Your task to perform on an android device: toggle javascript in the chrome app Image 0: 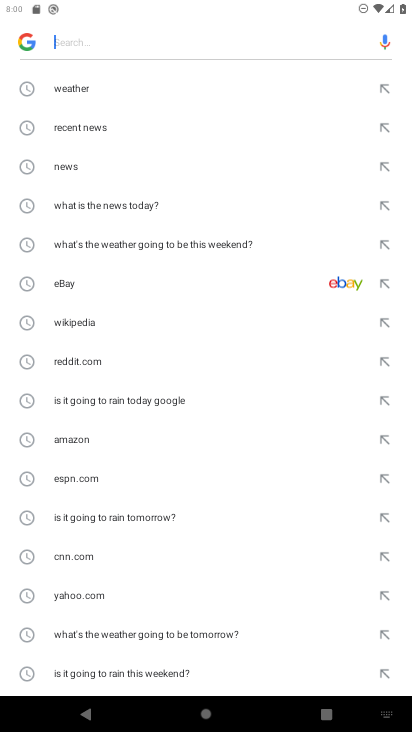
Step 0: press home button
Your task to perform on an android device: toggle javascript in the chrome app Image 1: 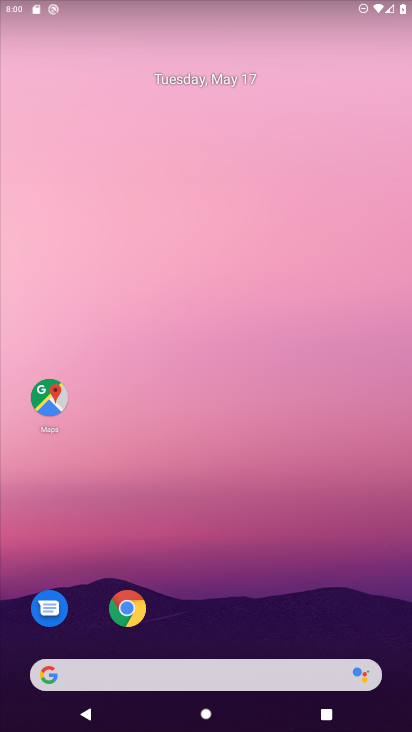
Step 1: click (123, 619)
Your task to perform on an android device: toggle javascript in the chrome app Image 2: 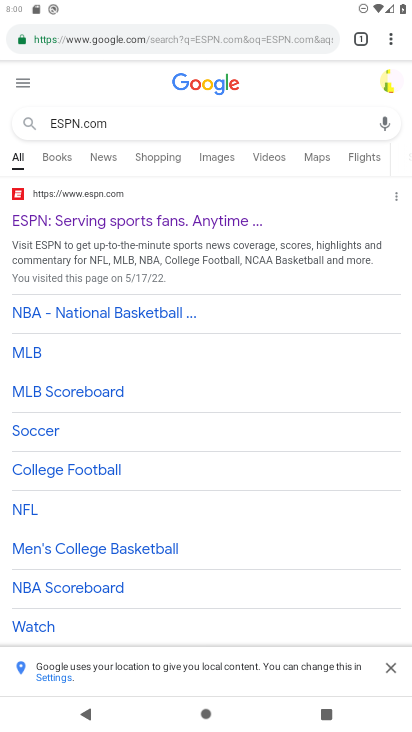
Step 2: click (395, 48)
Your task to perform on an android device: toggle javascript in the chrome app Image 3: 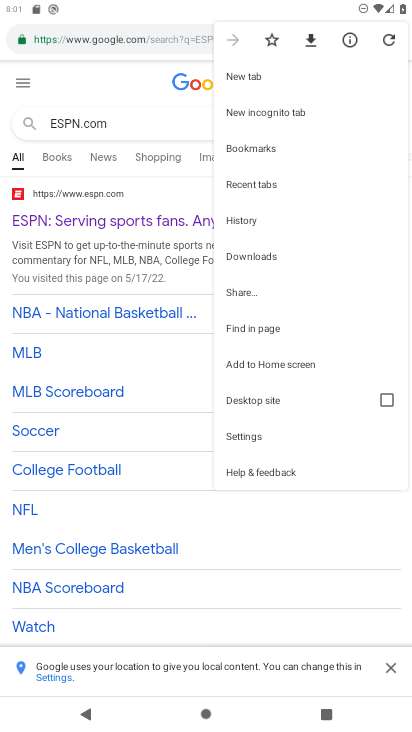
Step 3: click (251, 433)
Your task to perform on an android device: toggle javascript in the chrome app Image 4: 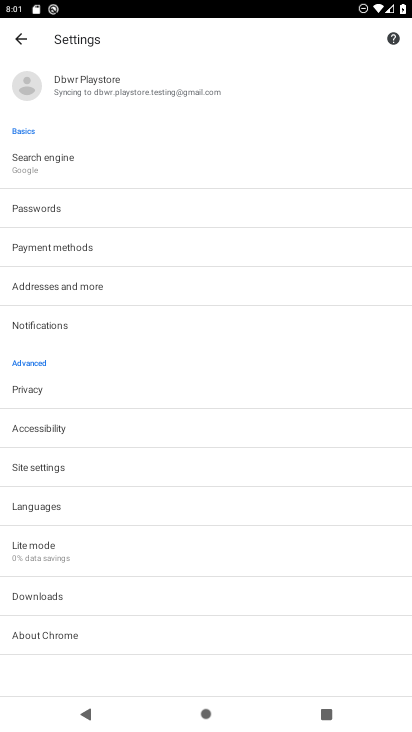
Step 4: click (58, 466)
Your task to perform on an android device: toggle javascript in the chrome app Image 5: 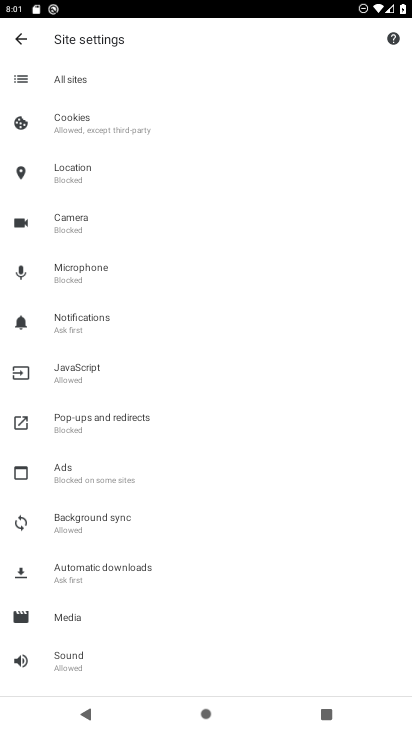
Step 5: click (99, 373)
Your task to perform on an android device: toggle javascript in the chrome app Image 6: 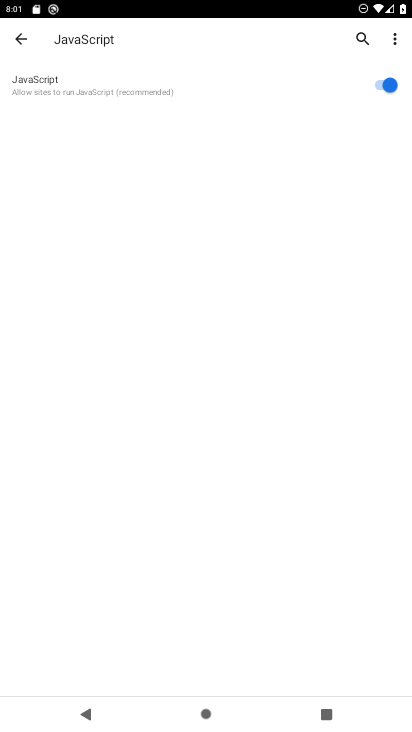
Step 6: click (367, 85)
Your task to perform on an android device: toggle javascript in the chrome app Image 7: 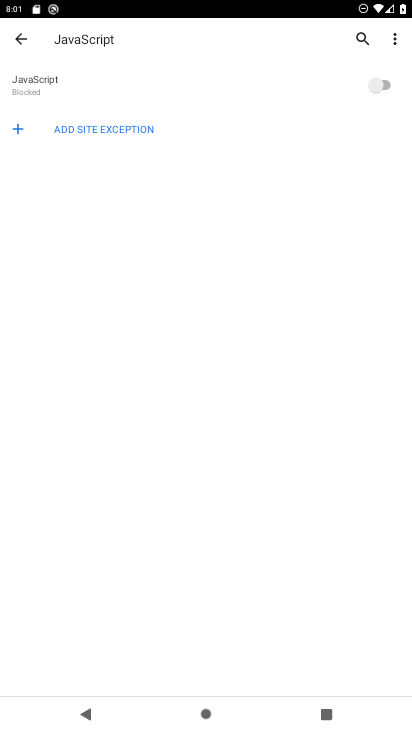
Step 7: task complete